Your task to perform on an android device: toggle pop-ups in chrome Image 0: 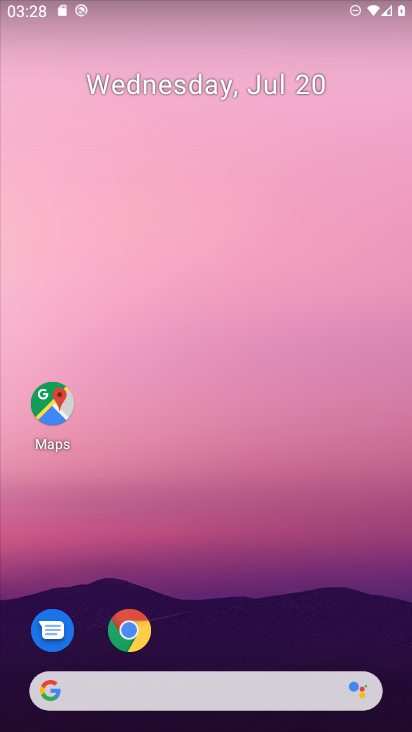
Step 0: press home button
Your task to perform on an android device: toggle pop-ups in chrome Image 1: 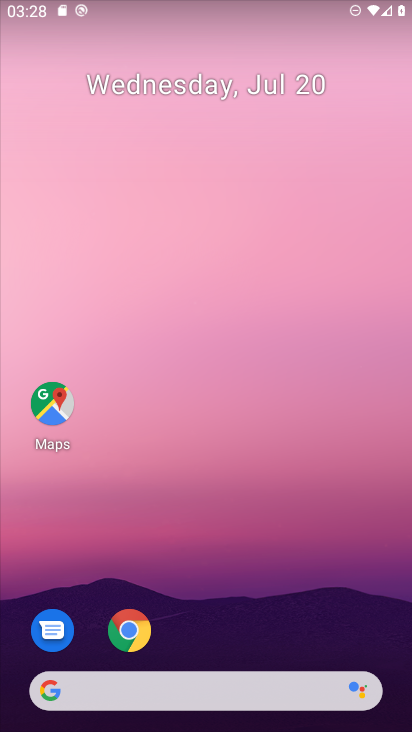
Step 1: drag from (357, 597) to (382, 161)
Your task to perform on an android device: toggle pop-ups in chrome Image 2: 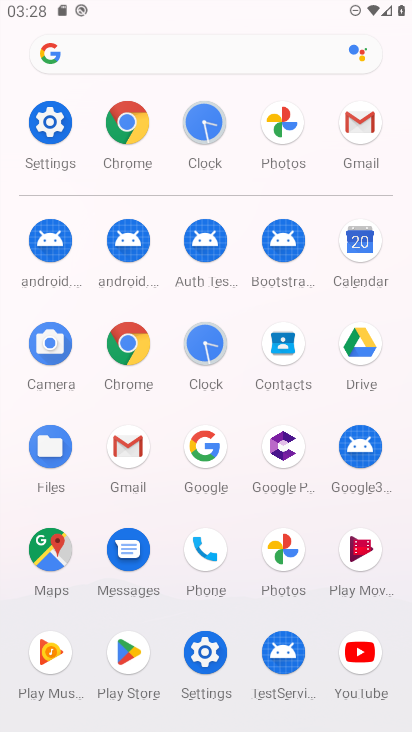
Step 2: click (134, 342)
Your task to perform on an android device: toggle pop-ups in chrome Image 3: 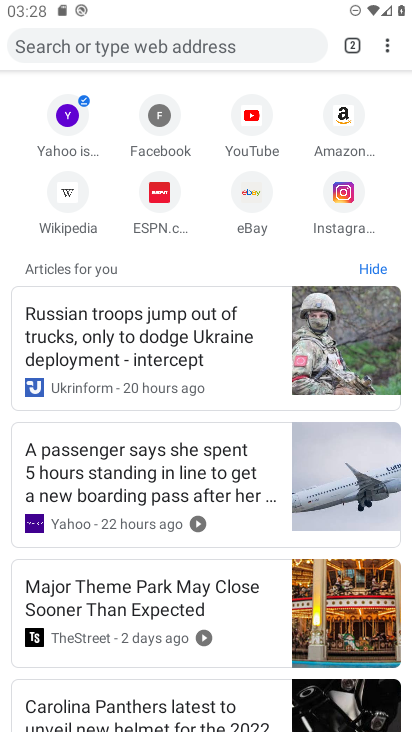
Step 3: click (384, 48)
Your task to perform on an android device: toggle pop-ups in chrome Image 4: 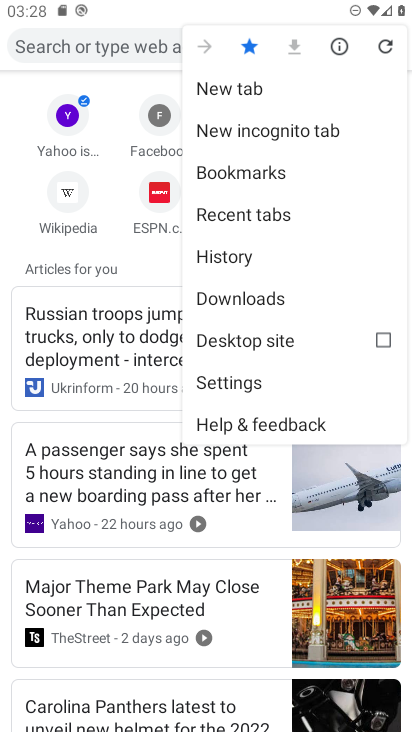
Step 4: click (253, 376)
Your task to perform on an android device: toggle pop-ups in chrome Image 5: 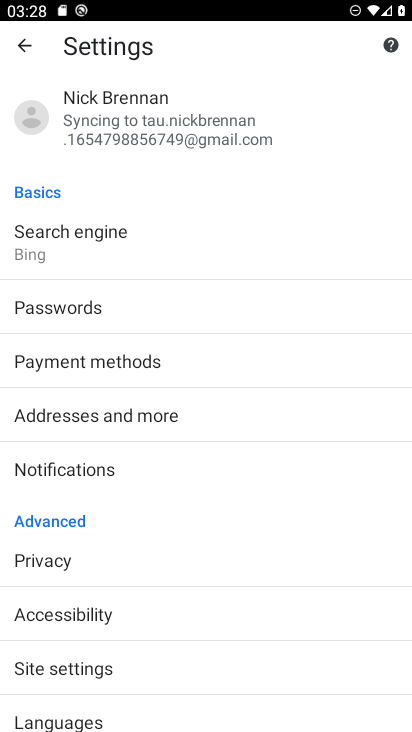
Step 5: drag from (273, 486) to (284, 412)
Your task to perform on an android device: toggle pop-ups in chrome Image 6: 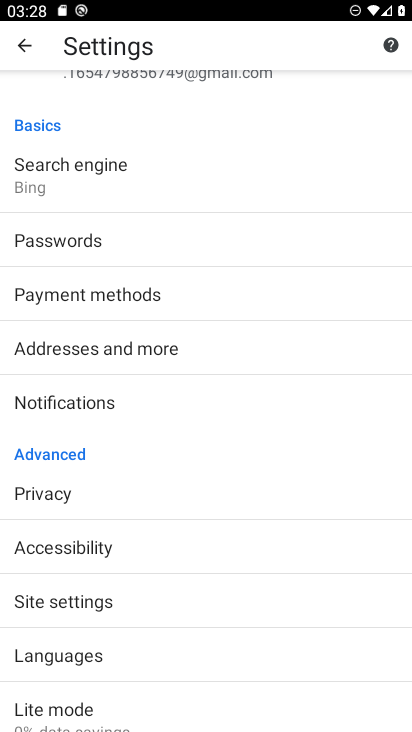
Step 6: drag from (288, 533) to (291, 427)
Your task to perform on an android device: toggle pop-ups in chrome Image 7: 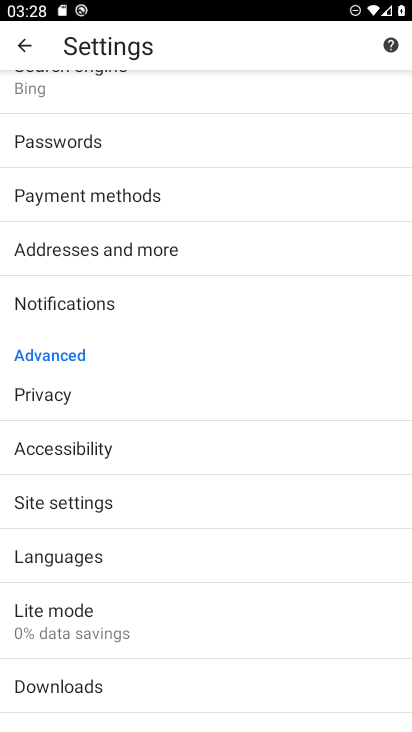
Step 7: drag from (293, 584) to (300, 445)
Your task to perform on an android device: toggle pop-ups in chrome Image 8: 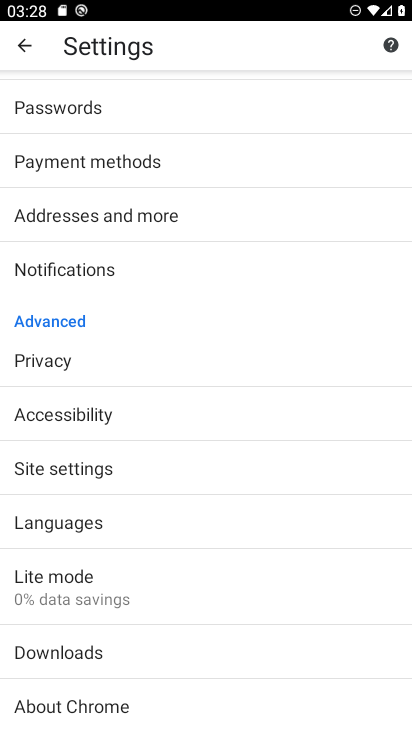
Step 8: click (296, 461)
Your task to perform on an android device: toggle pop-ups in chrome Image 9: 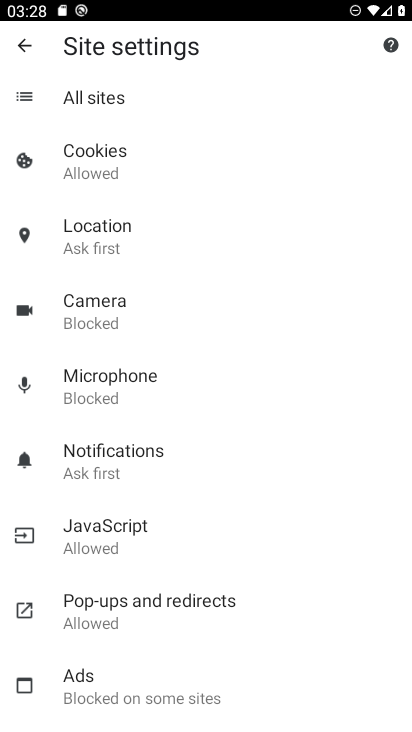
Step 9: click (243, 599)
Your task to perform on an android device: toggle pop-ups in chrome Image 10: 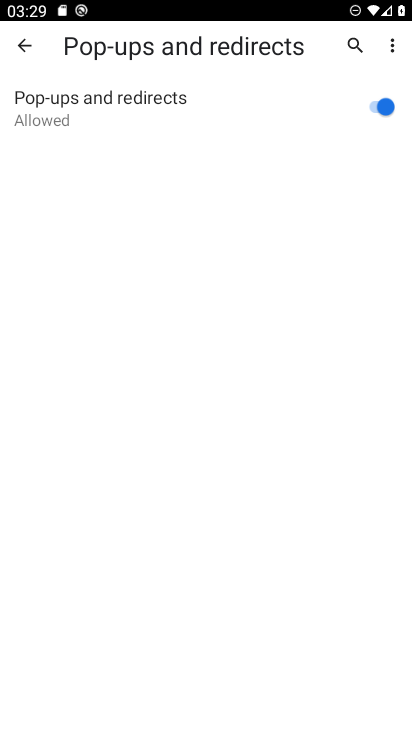
Step 10: click (377, 109)
Your task to perform on an android device: toggle pop-ups in chrome Image 11: 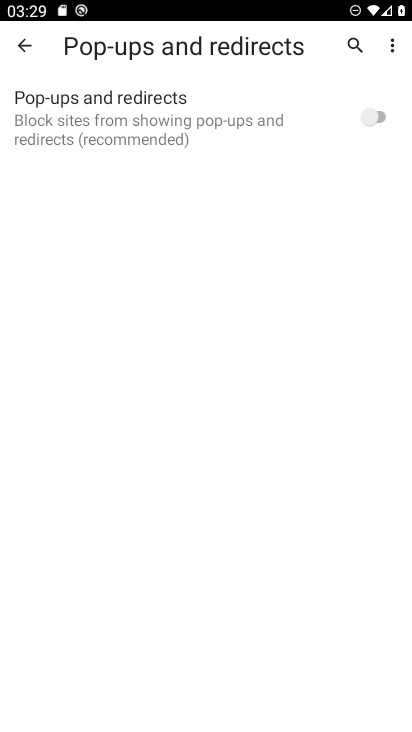
Step 11: task complete